Your task to perform on an android device: Open battery settings Image 0: 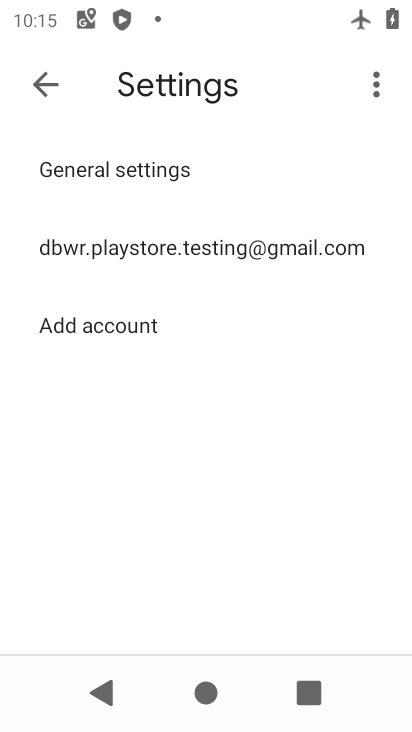
Step 0: press home button
Your task to perform on an android device: Open battery settings Image 1: 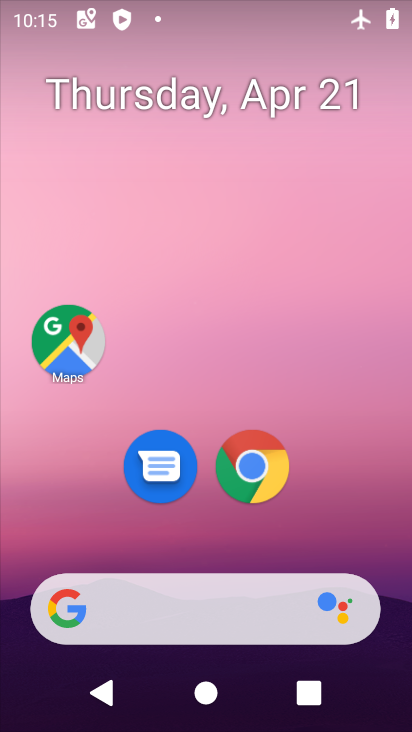
Step 1: drag from (305, 511) to (304, 52)
Your task to perform on an android device: Open battery settings Image 2: 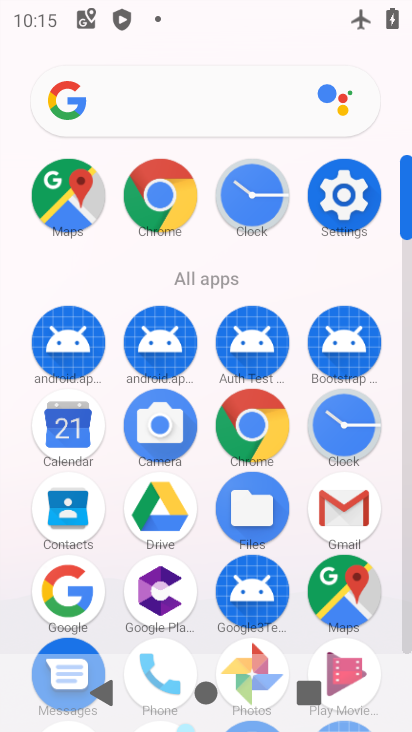
Step 2: click (352, 180)
Your task to perform on an android device: Open battery settings Image 3: 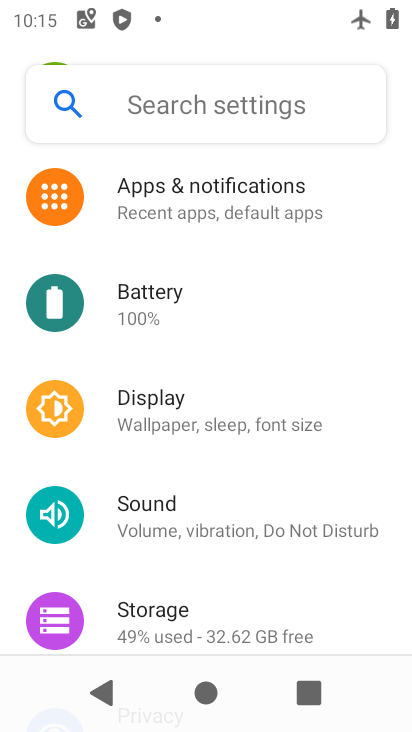
Step 3: drag from (214, 584) to (209, 183)
Your task to perform on an android device: Open battery settings Image 4: 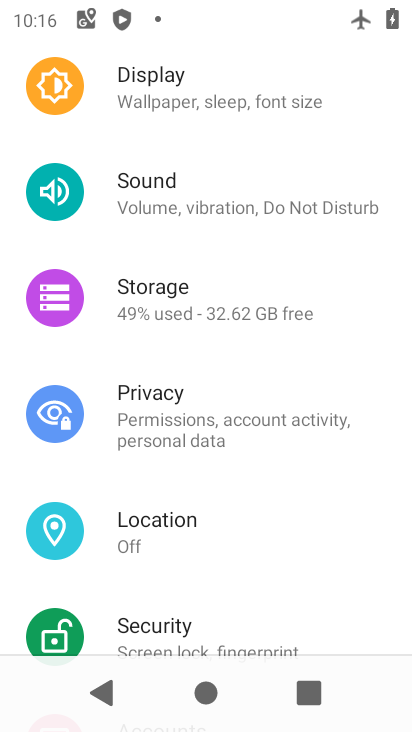
Step 4: drag from (244, 546) to (269, 275)
Your task to perform on an android device: Open battery settings Image 5: 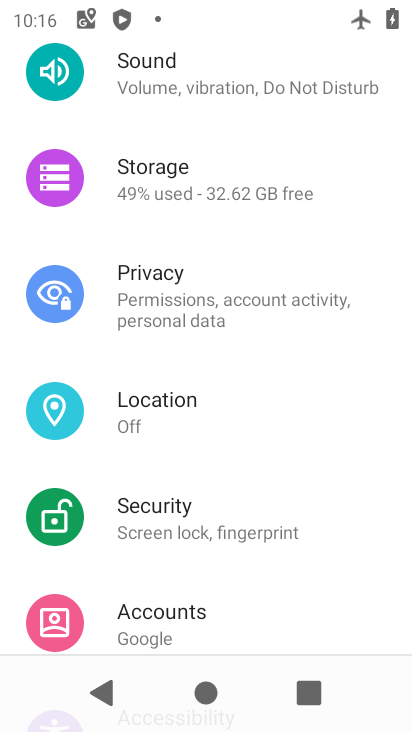
Step 5: drag from (215, 617) to (303, 144)
Your task to perform on an android device: Open battery settings Image 6: 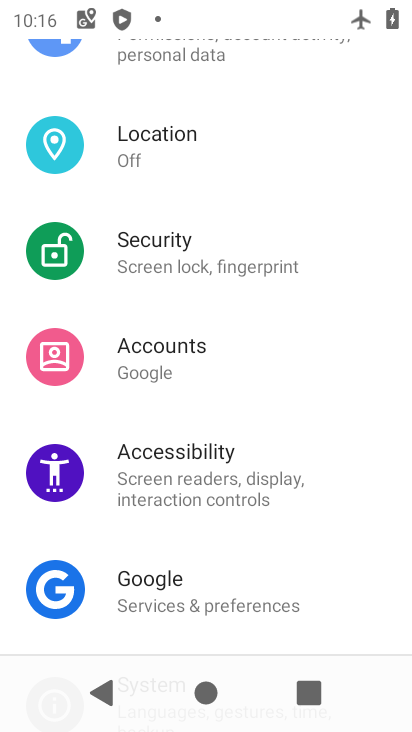
Step 6: drag from (275, 218) to (254, 583)
Your task to perform on an android device: Open battery settings Image 7: 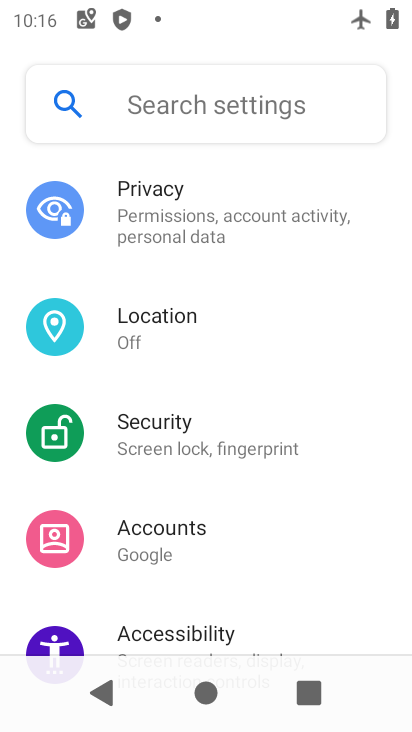
Step 7: drag from (263, 248) to (243, 624)
Your task to perform on an android device: Open battery settings Image 8: 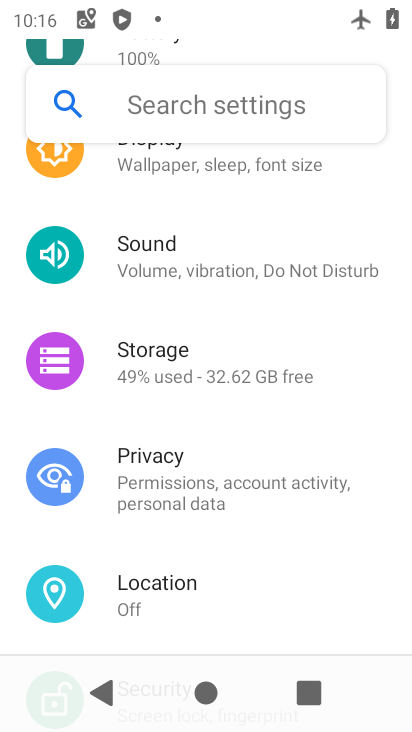
Step 8: drag from (225, 309) to (226, 592)
Your task to perform on an android device: Open battery settings Image 9: 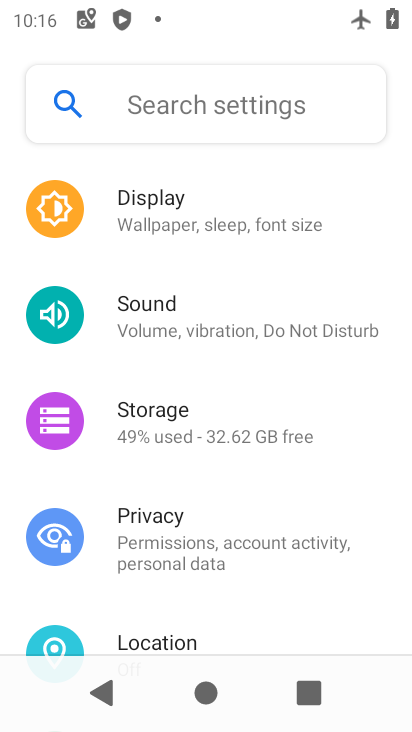
Step 9: drag from (248, 269) to (239, 624)
Your task to perform on an android device: Open battery settings Image 10: 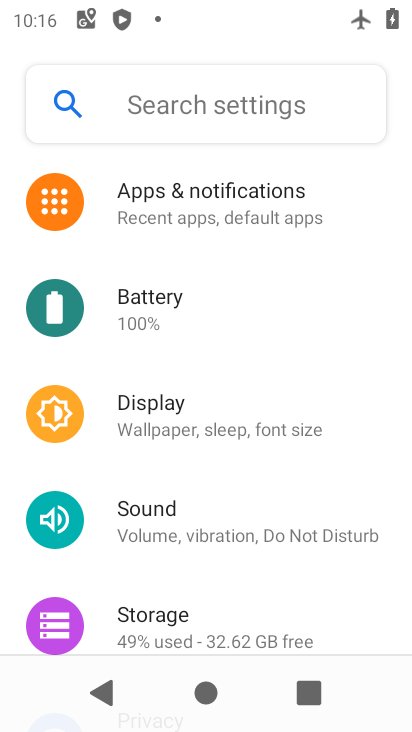
Step 10: click (160, 319)
Your task to perform on an android device: Open battery settings Image 11: 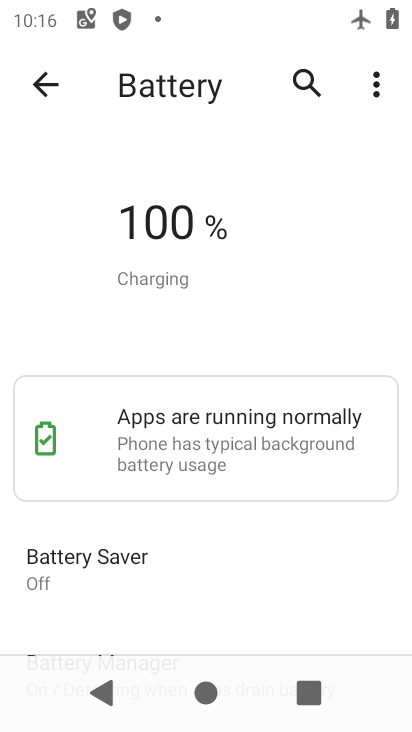
Step 11: task complete